Your task to perform on an android device: Show me popular games on the Play Store Image 0: 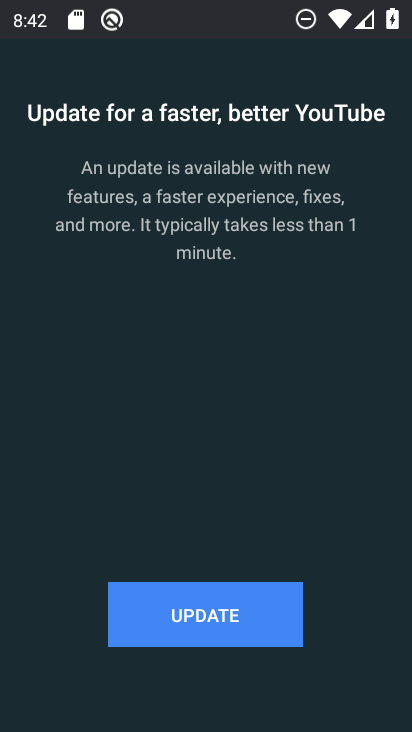
Step 0: press back button
Your task to perform on an android device: Show me popular games on the Play Store Image 1: 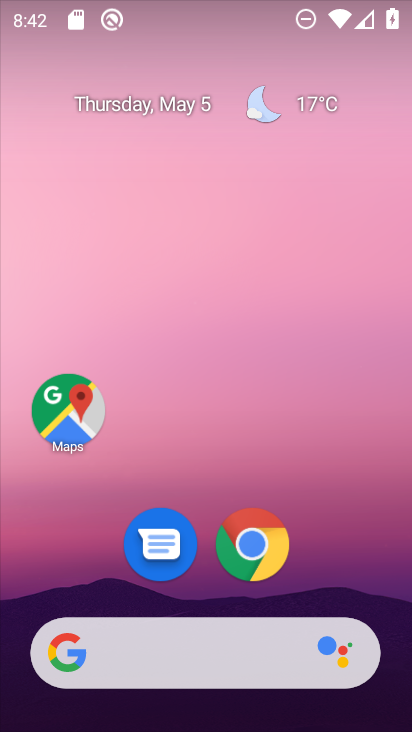
Step 1: drag from (397, 637) to (249, 61)
Your task to perform on an android device: Show me popular games on the Play Store Image 2: 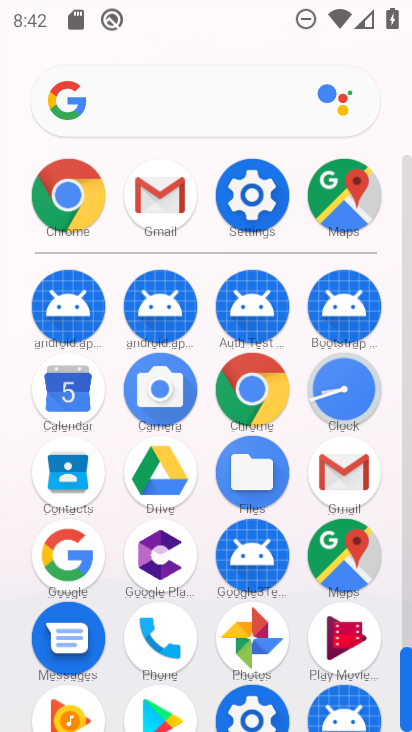
Step 2: click (162, 700)
Your task to perform on an android device: Show me popular games on the Play Store Image 3: 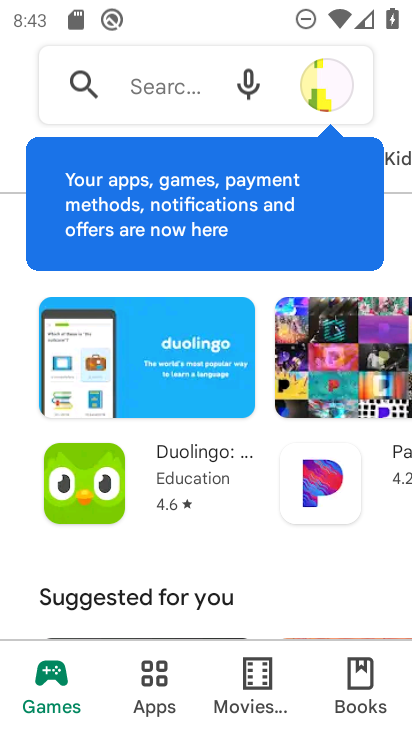
Step 3: task complete